Your task to perform on an android device: Search for flights from Helsinki to Seoul Image 0: 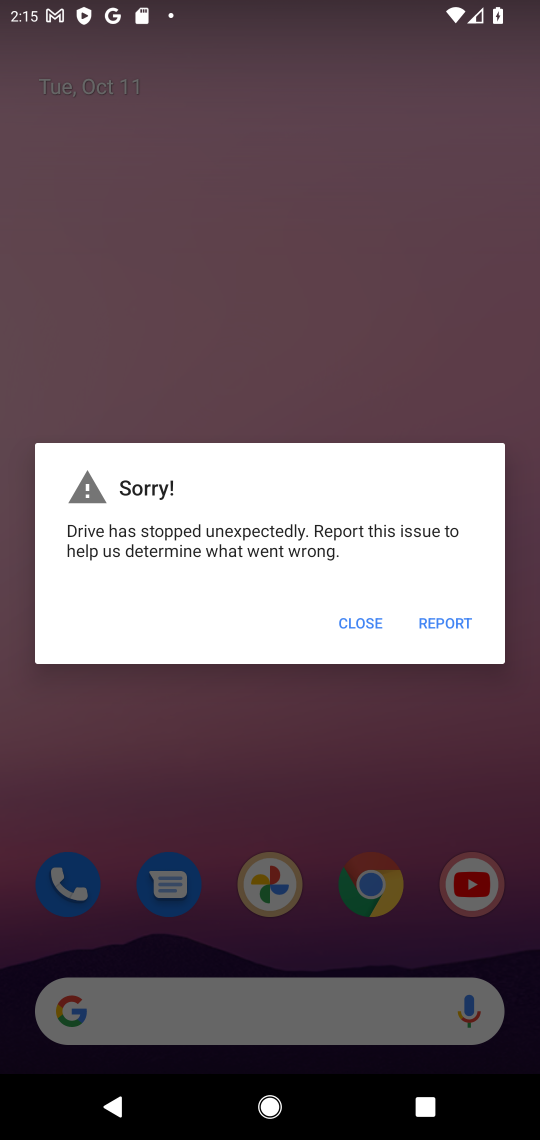
Step 0: press home button
Your task to perform on an android device: Search for flights from Helsinki to Seoul Image 1: 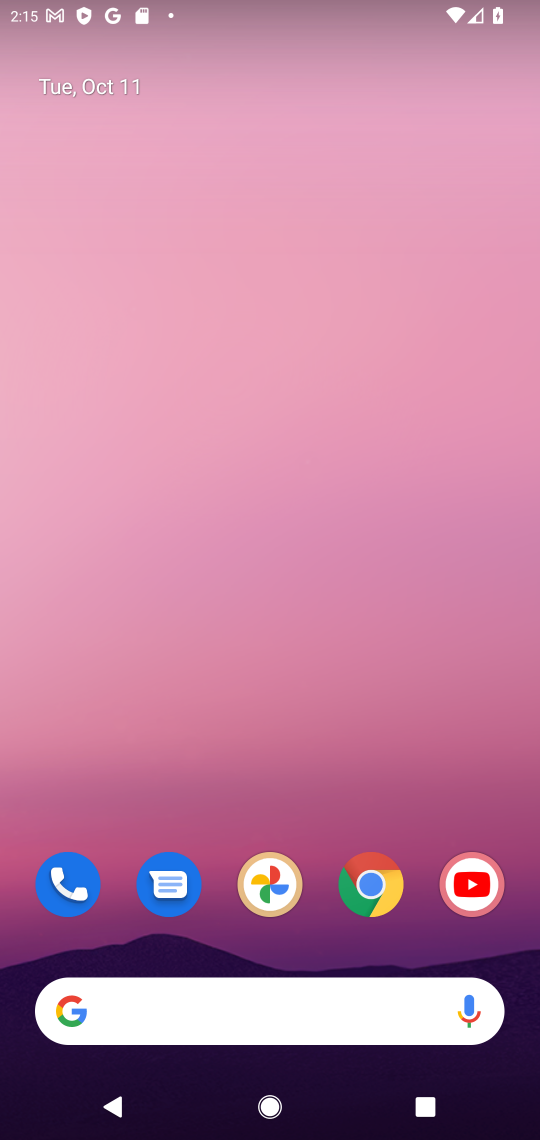
Step 1: click (373, 882)
Your task to perform on an android device: Search for flights from Helsinki to Seoul Image 2: 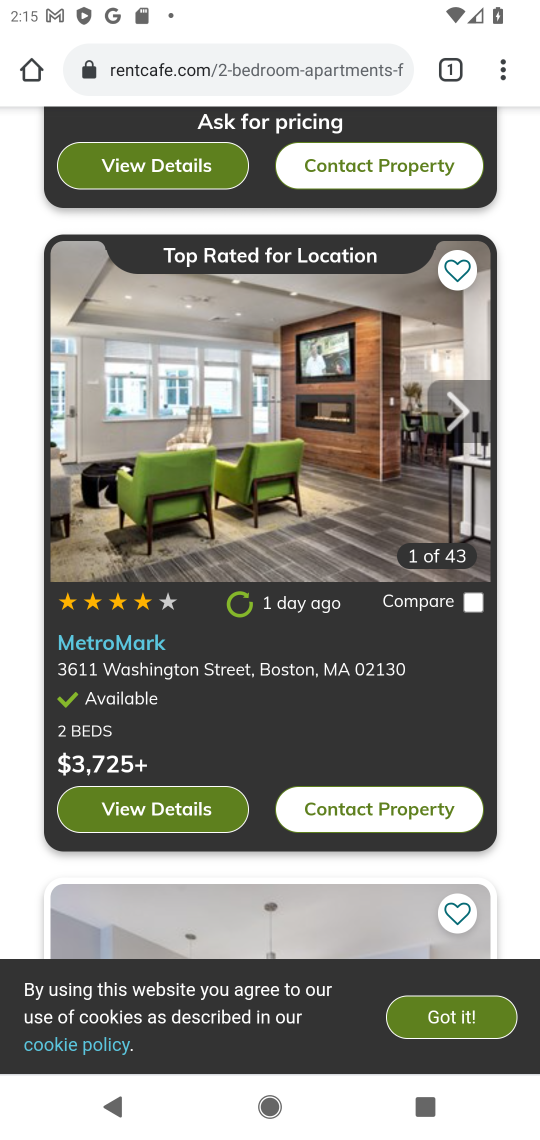
Step 2: click (358, 75)
Your task to perform on an android device: Search for flights from Helsinki to Seoul Image 3: 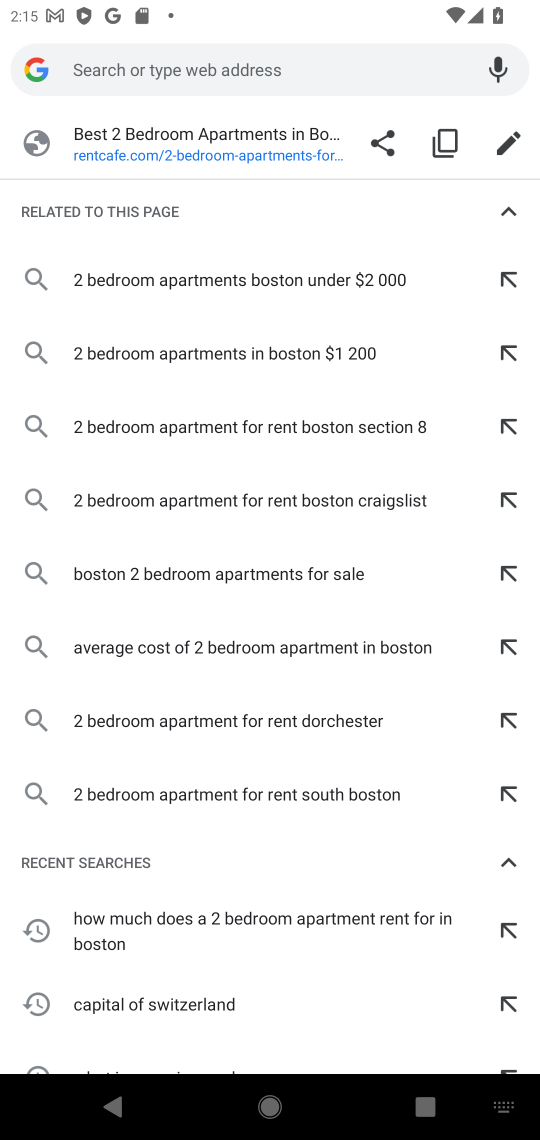
Step 3: type "flight from Helsinki to Seoul"
Your task to perform on an android device: Search for flights from Helsinki to Seoul Image 4: 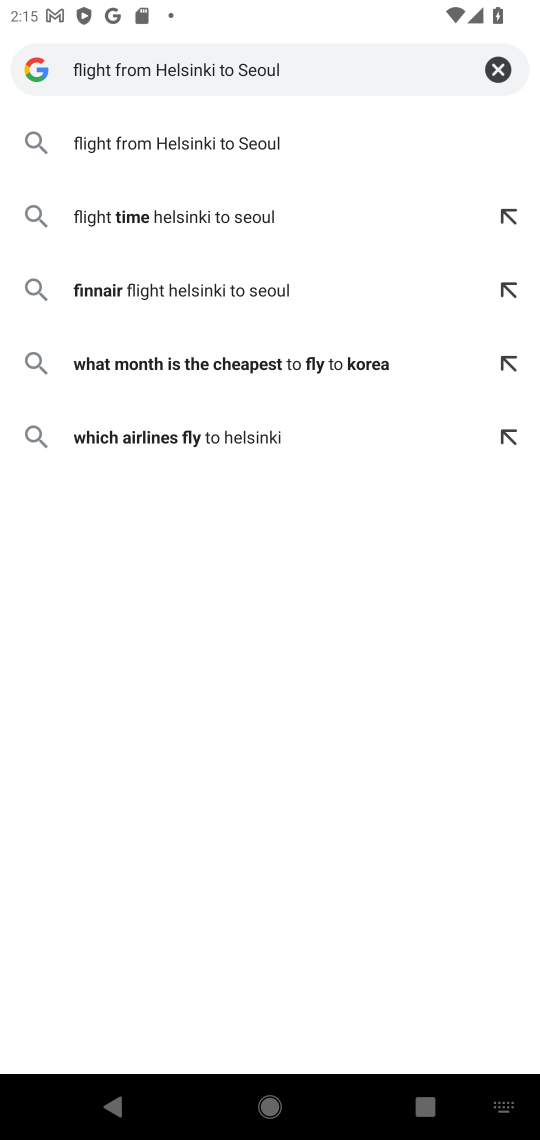
Step 4: click (267, 142)
Your task to perform on an android device: Search for flights from Helsinki to Seoul Image 5: 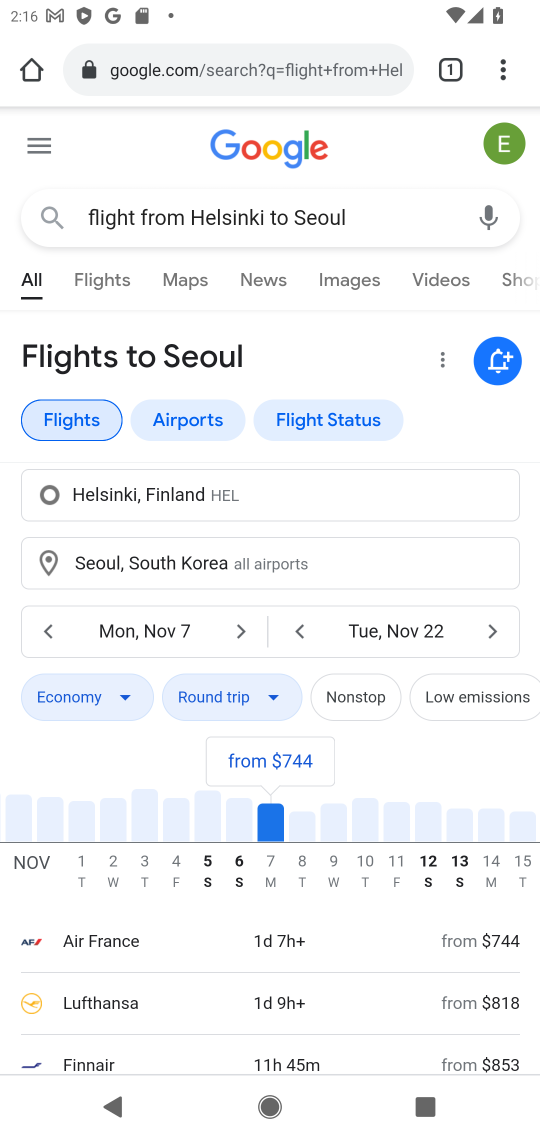
Step 5: task complete